Your task to perform on an android device: Do I have any events today? Image 0: 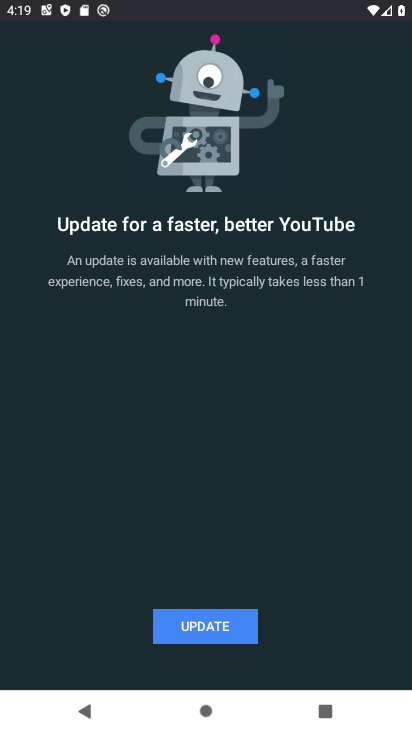
Step 0: press home button
Your task to perform on an android device: Do I have any events today? Image 1: 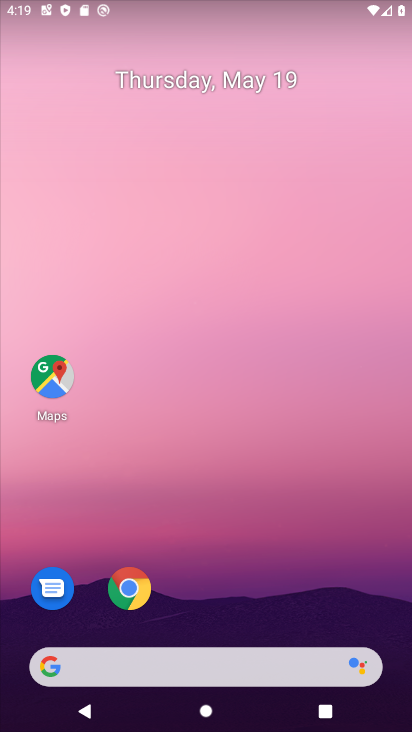
Step 1: click (260, 94)
Your task to perform on an android device: Do I have any events today? Image 2: 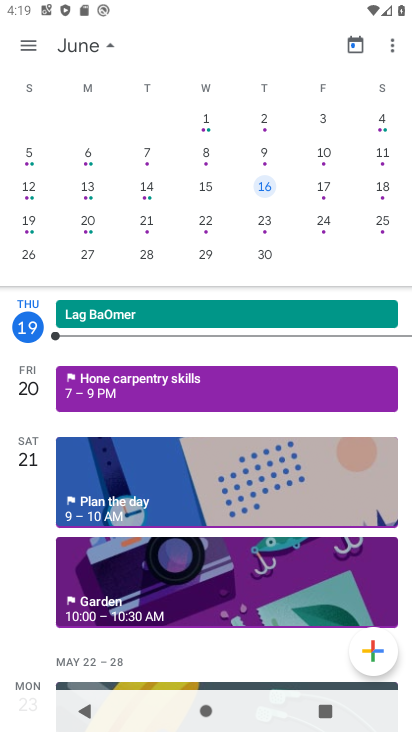
Step 2: click (260, 94)
Your task to perform on an android device: Do I have any events today? Image 3: 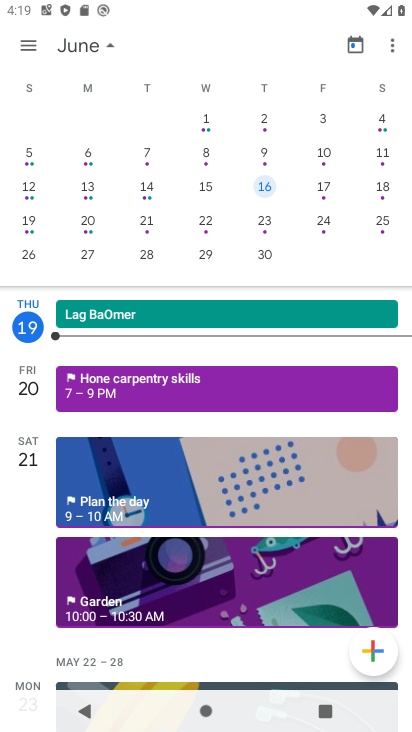
Step 3: task complete